Your task to perform on an android device: Go to ESPN.com Image 0: 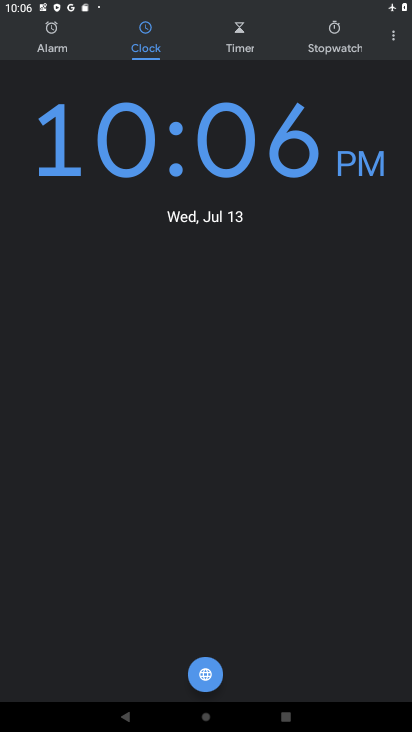
Step 0: press back button
Your task to perform on an android device: Go to ESPN.com Image 1: 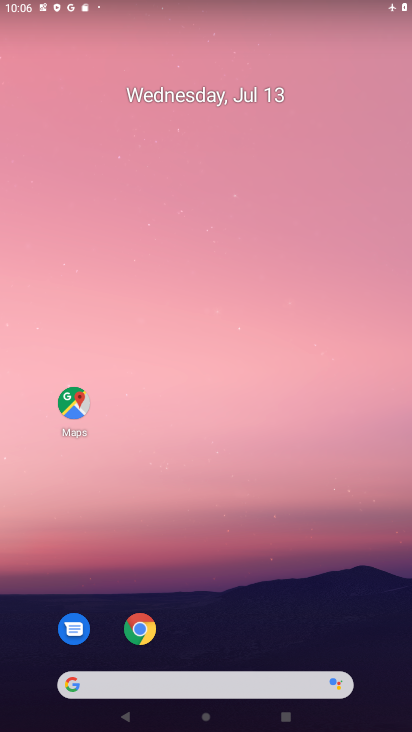
Step 1: drag from (271, 662) to (265, 153)
Your task to perform on an android device: Go to ESPN.com Image 2: 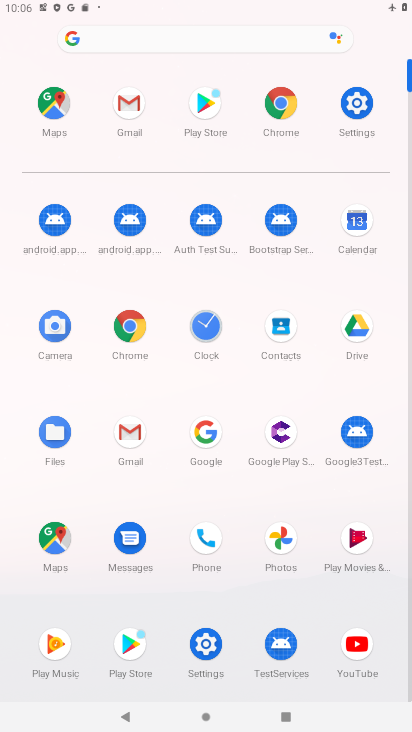
Step 2: click (173, 32)
Your task to perform on an android device: Go to ESPN.com Image 3: 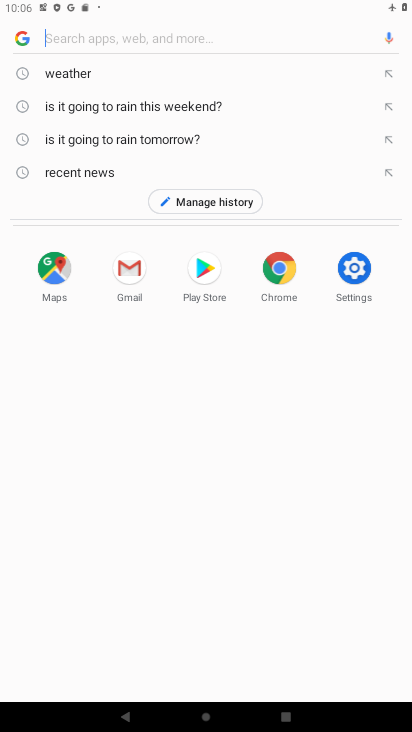
Step 3: type "espn.com"
Your task to perform on an android device: Go to ESPN.com Image 4: 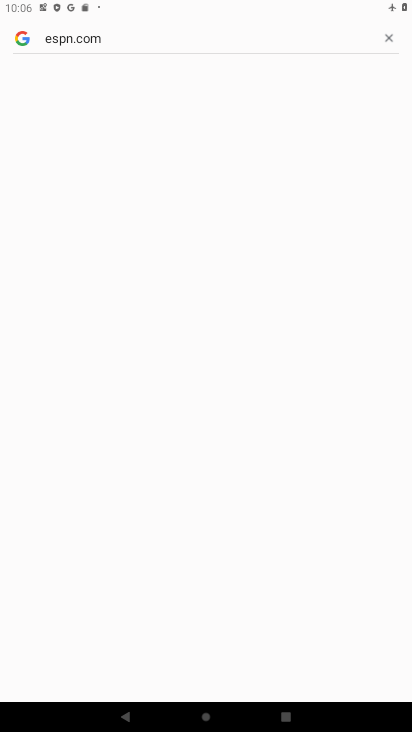
Step 4: task complete